Your task to perform on an android device: open wifi settings Image 0: 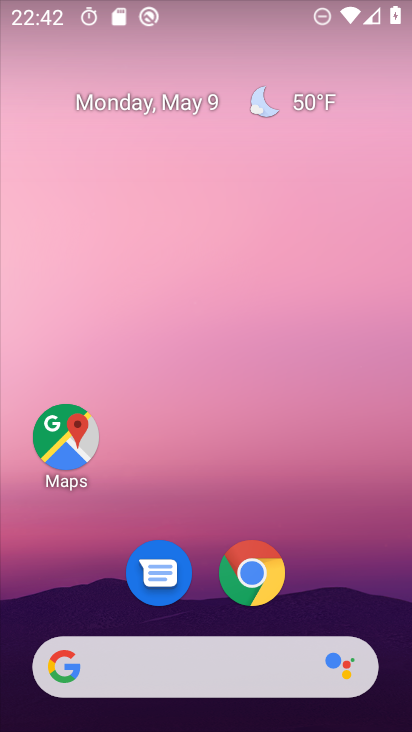
Step 0: drag from (335, 503) to (288, 165)
Your task to perform on an android device: open wifi settings Image 1: 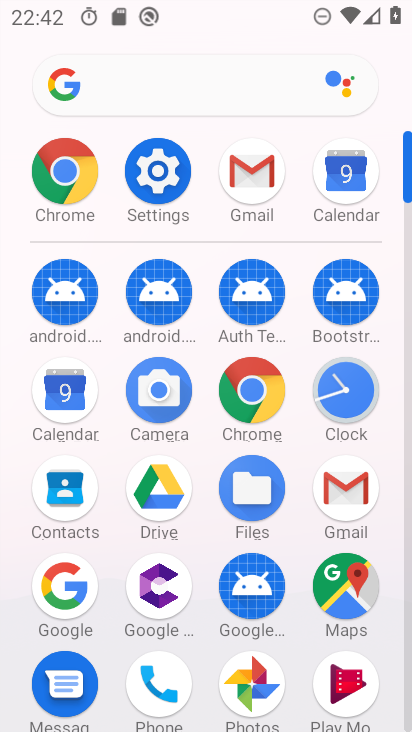
Step 1: click (180, 181)
Your task to perform on an android device: open wifi settings Image 2: 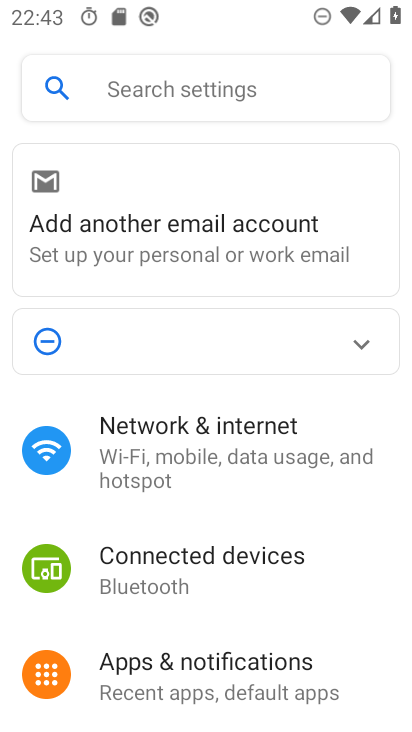
Step 2: click (210, 443)
Your task to perform on an android device: open wifi settings Image 3: 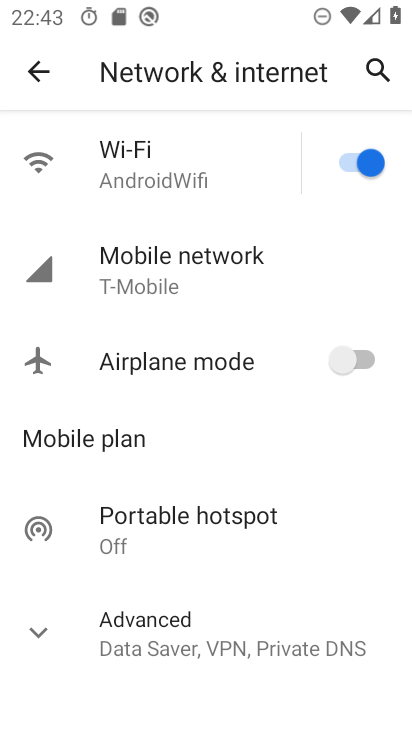
Step 3: click (245, 161)
Your task to perform on an android device: open wifi settings Image 4: 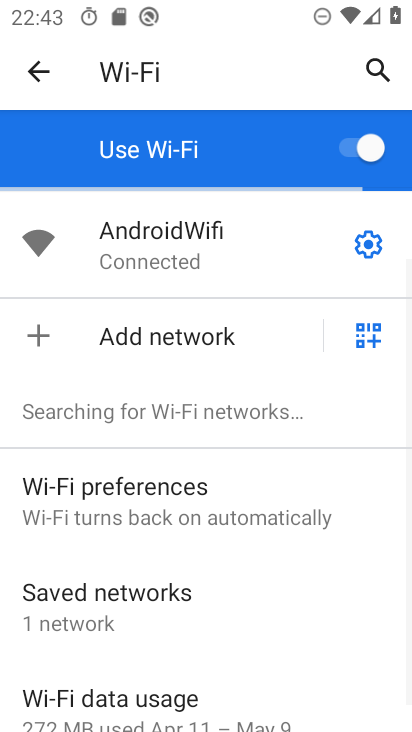
Step 4: click (360, 253)
Your task to perform on an android device: open wifi settings Image 5: 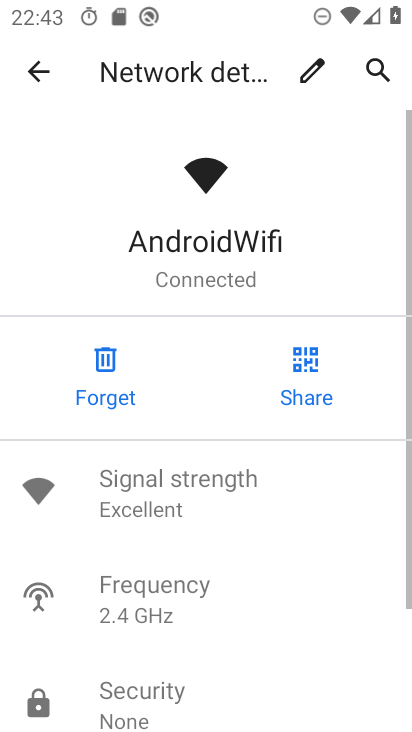
Step 5: task complete